Your task to perform on an android device: open chrome and create a bookmark for the current page Image 0: 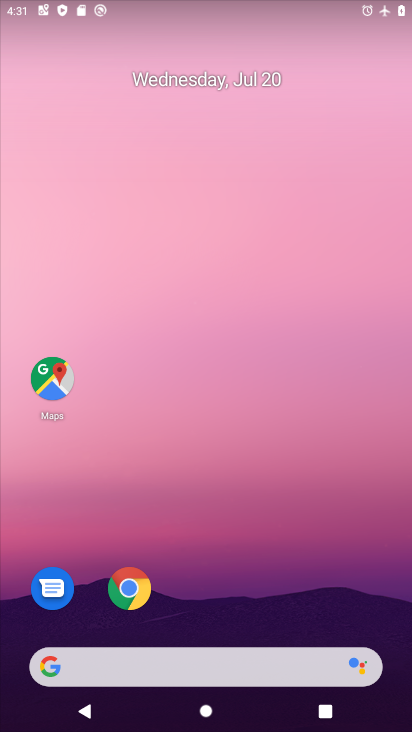
Step 0: drag from (273, 602) to (292, 69)
Your task to perform on an android device: open chrome and create a bookmark for the current page Image 1: 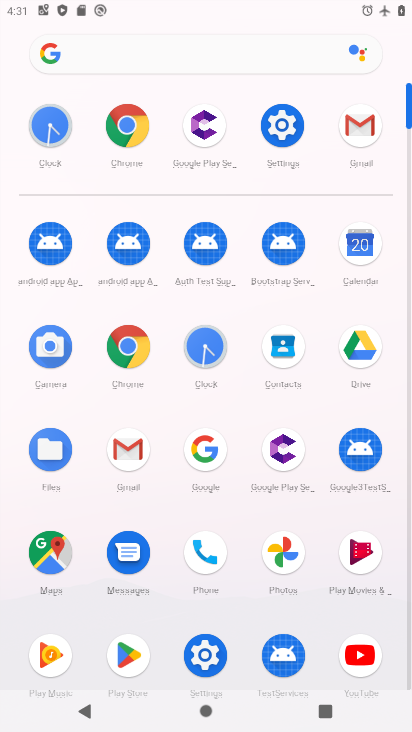
Step 1: click (131, 125)
Your task to perform on an android device: open chrome and create a bookmark for the current page Image 2: 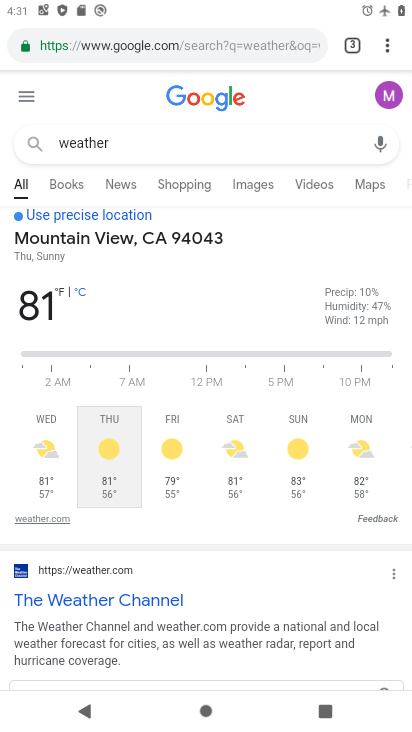
Step 2: task complete